Your task to perform on an android device: Is it going to rain this weekend? Image 0: 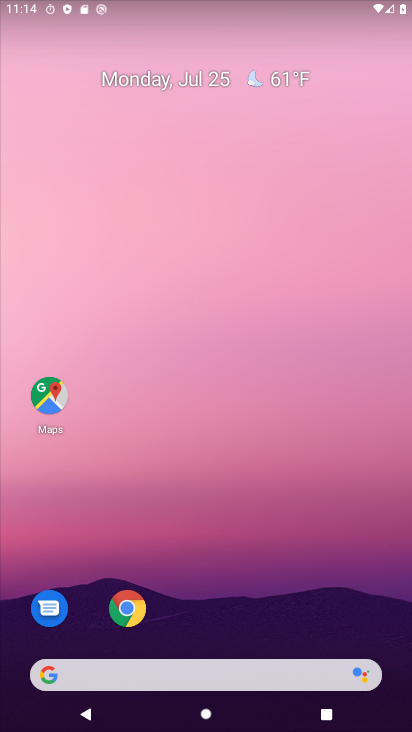
Step 0: drag from (238, 503) to (223, 8)
Your task to perform on an android device: Is it going to rain this weekend? Image 1: 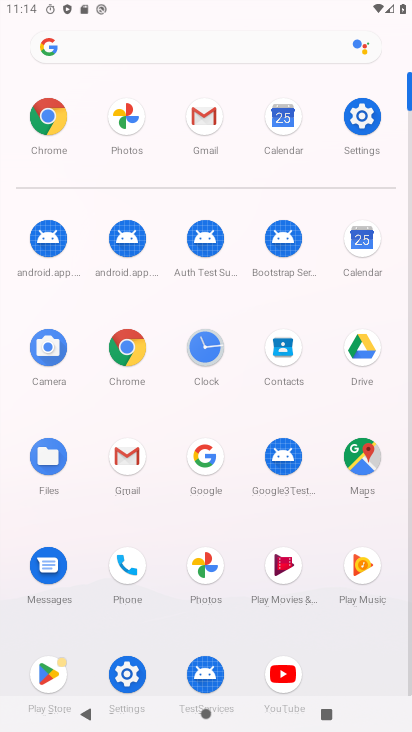
Step 1: click (199, 462)
Your task to perform on an android device: Is it going to rain this weekend? Image 2: 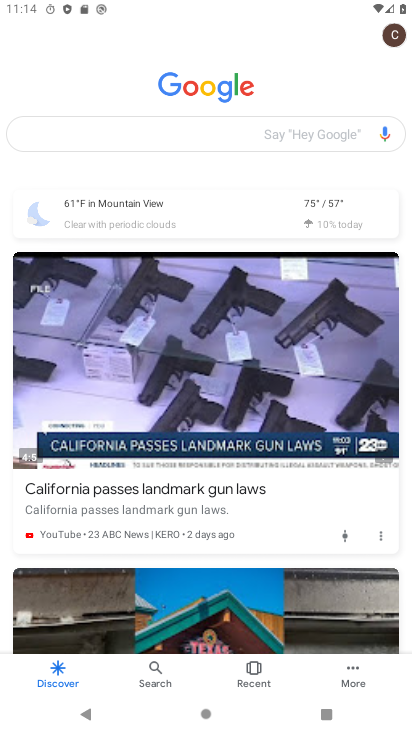
Step 2: click (143, 214)
Your task to perform on an android device: Is it going to rain this weekend? Image 3: 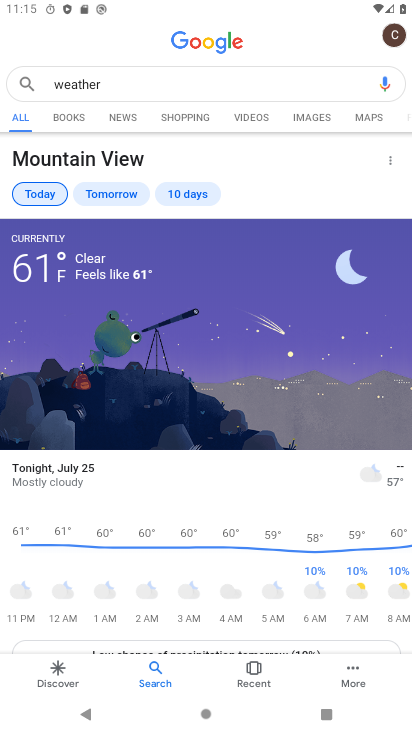
Step 3: task complete